Your task to perform on an android device: Go to network settings Image 0: 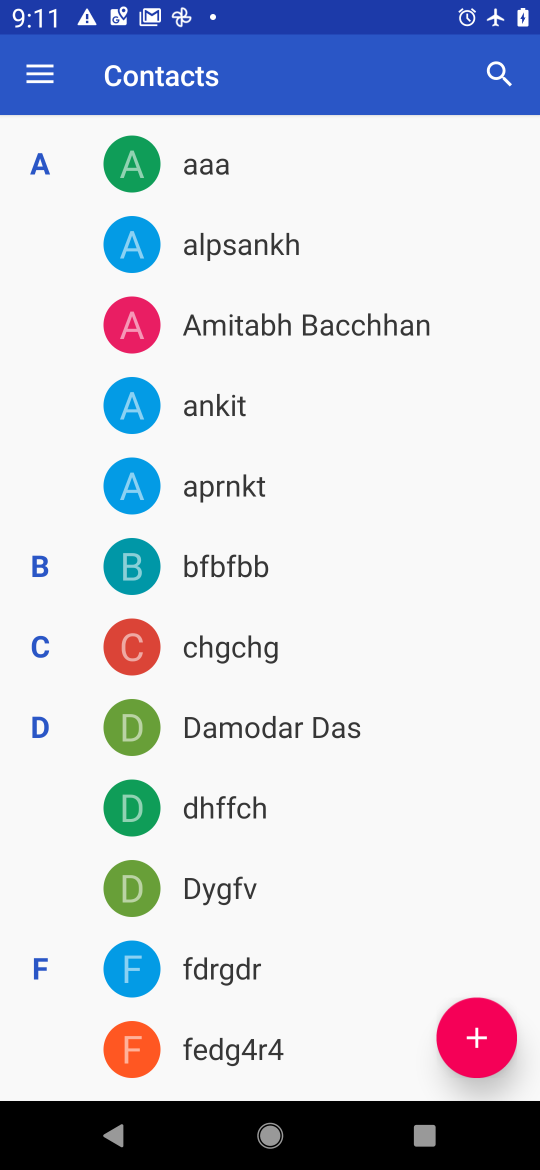
Step 0: press home button
Your task to perform on an android device: Go to network settings Image 1: 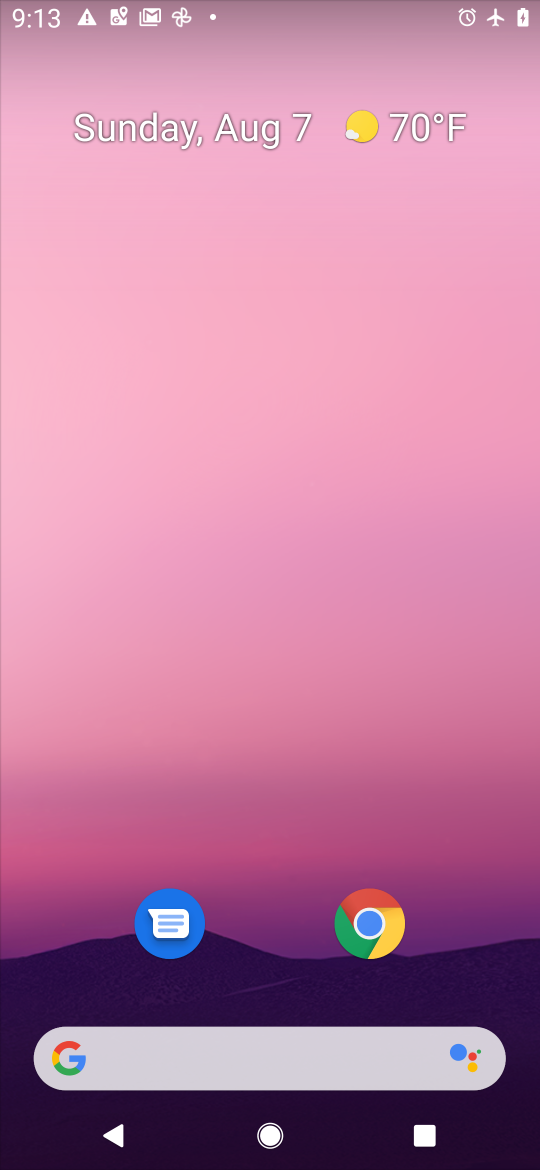
Step 1: drag from (483, 993) to (175, 0)
Your task to perform on an android device: Go to network settings Image 2: 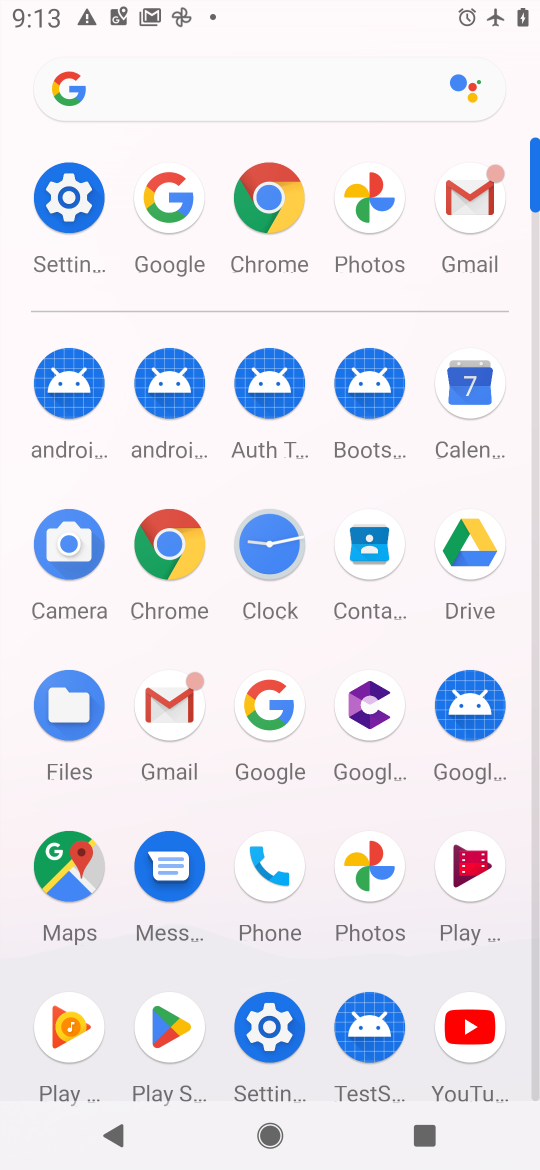
Step 2: click (253, 1026)
Your task to perform on an android device: Go to network settings Image 3: 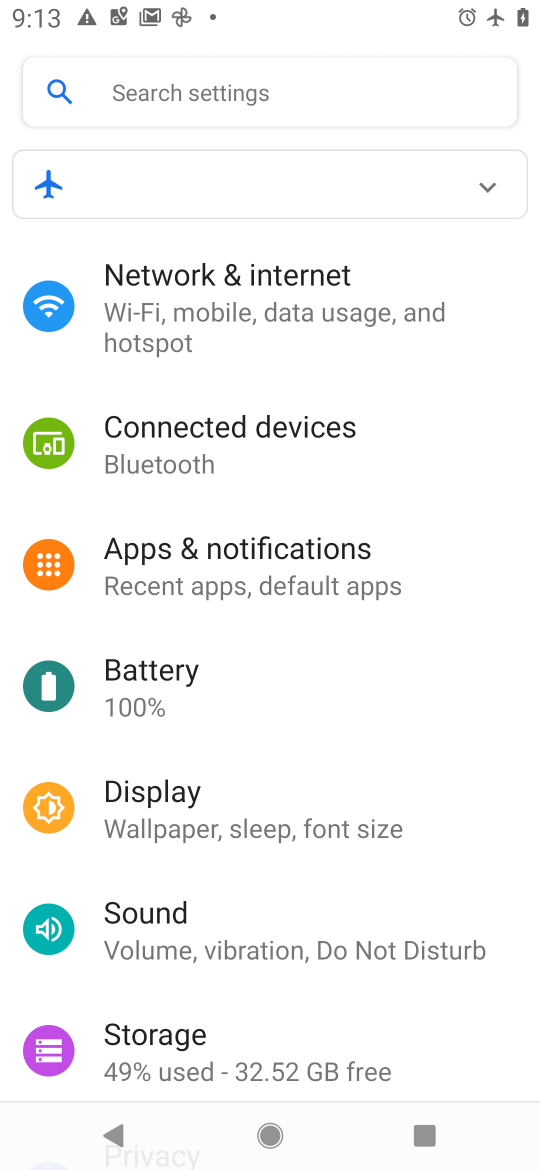
Step 3: click (175, 326)
Your task to perform on an android device: Go to network settings Image 4: 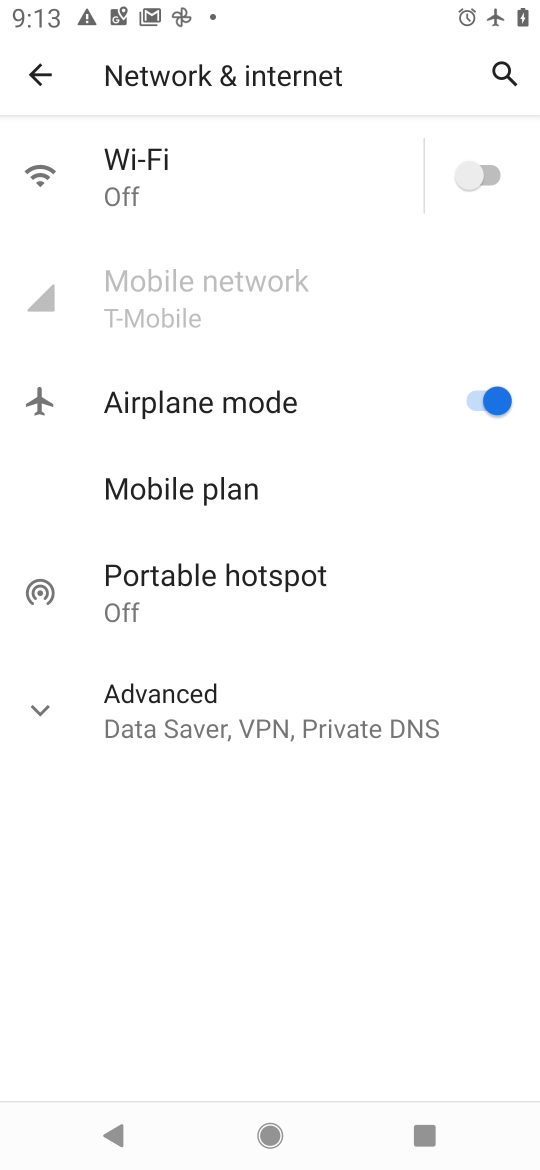
Step 4: task complete